Your task to perform on an android device: see tabs open on other devices in the chrome app Image 0: 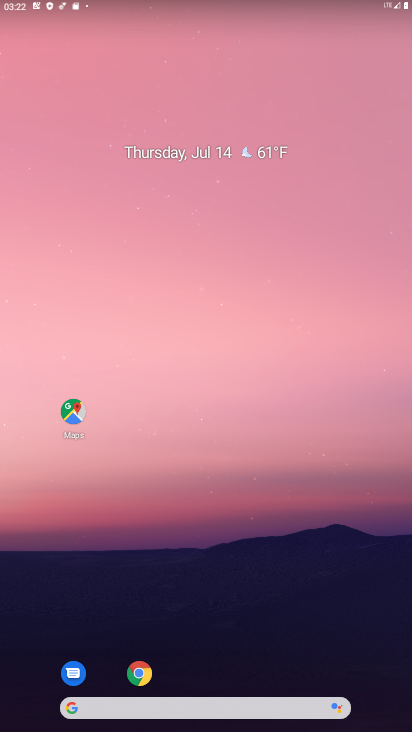
Step 0: click (133, 683)
Your task to perform on an android device: see tabs open on other devices in the chrome app Image 1: 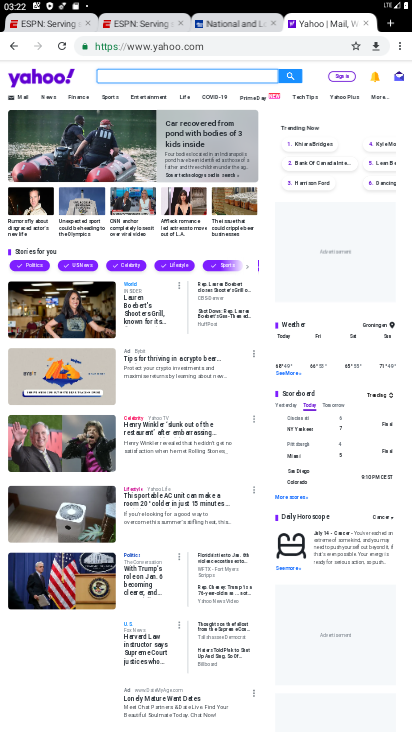
Step 1: click (394, 50)
Your task to perform on an android device: see tabs open on other devices in the chrome app Image 2: 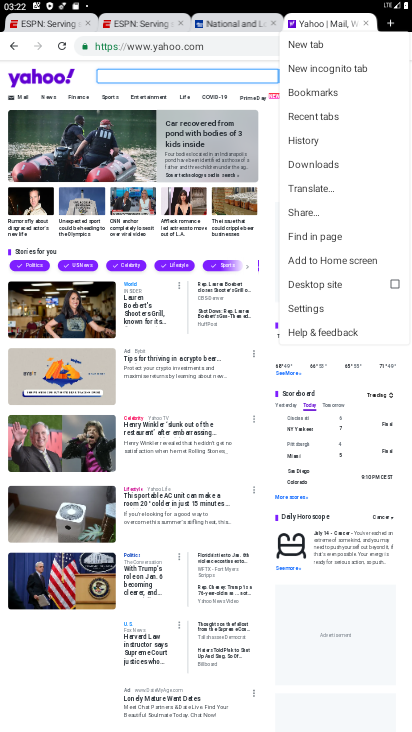
Step 2: click (311, 115)
Your task to perform on an android device: see tabs open on other devices in the chrome app Image 3: 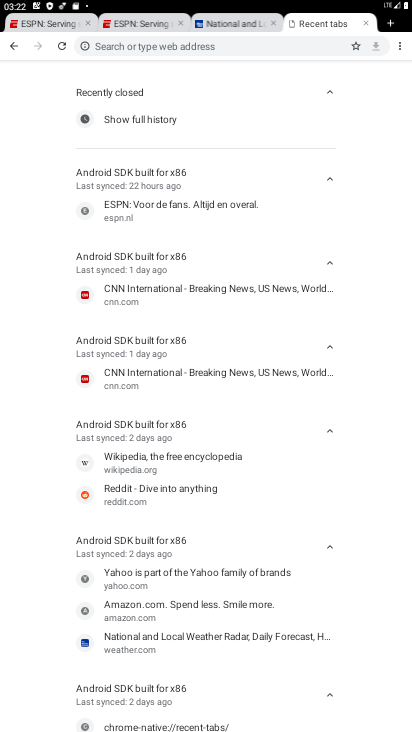
Step 3: task complete